Your task to perform on an android device: Open wifi settings Image 0: 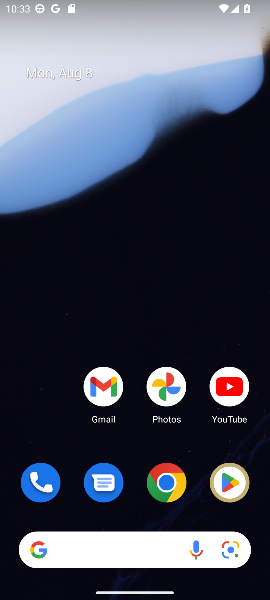
Step 0: drag from (132, 448) to (151, 0)
Your task to perform on an android device: Open wifi settings Image 1: 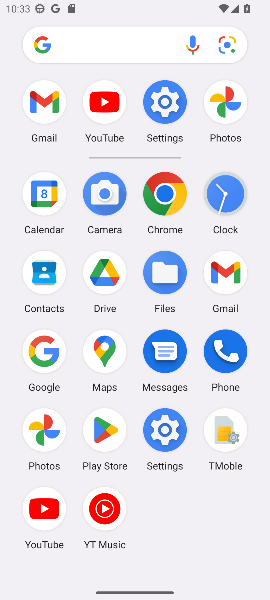
Step 1: click (163, 92)
Your task to perform on an android device: Open wifi settings Image 2: 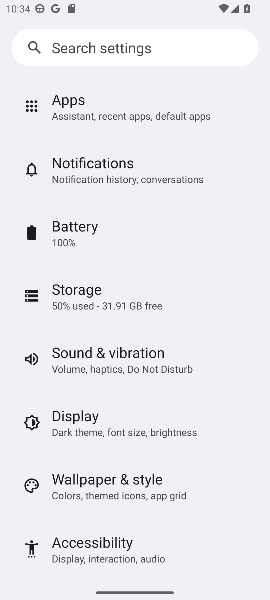
Step 2: drag from (126, 173) to (160, 492)
Your task to perform on an android device: Open wifi settings Image 3: 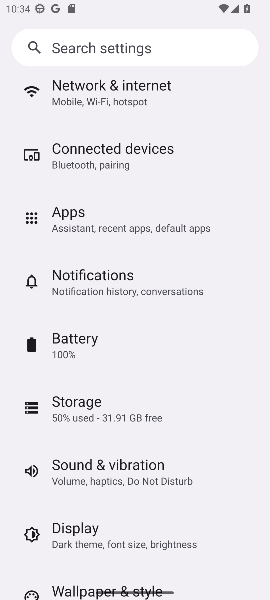
Step 3: click (136, 104)
Your task to perform on an android device: Open wifi settings Image 4: 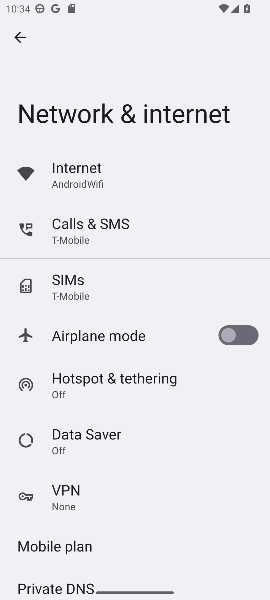
Step 4: click (74, 173)
Your task to perform on an android device: Open wifi settings Image 5: 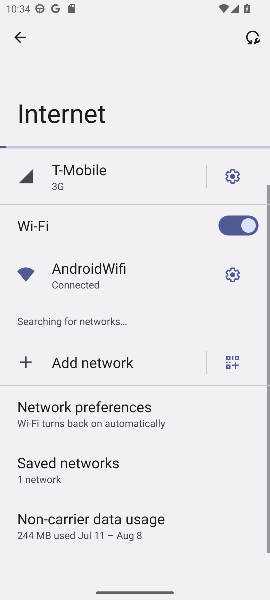
Step 5: click (232, 273)
Your task to perform on an android device: Open wifi settings Image 6: 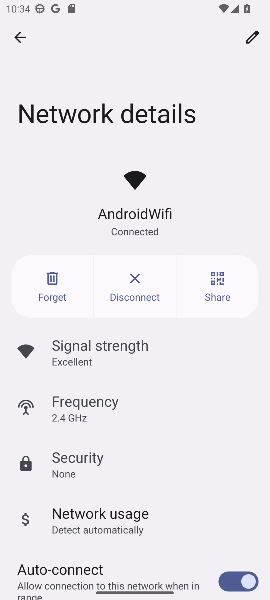
Step 6: task complete